Your task to perform on an android device: toggle notification dots Image 0: 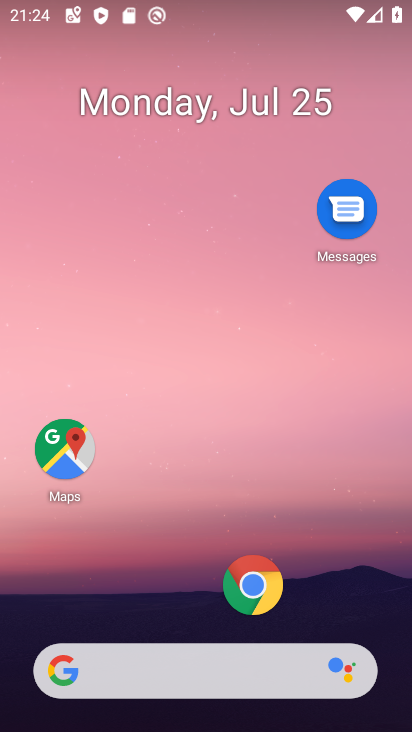
Step 0: press home button
Your task to perform on an android device: toggle notification dots Image 1: 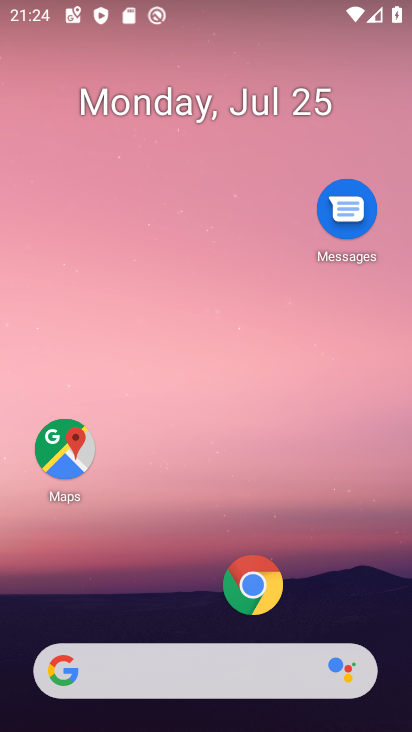
Step 1: drag from (210, 675) to (341, 7)
Your task to perform on an android device: toggle notification dots Image 2: 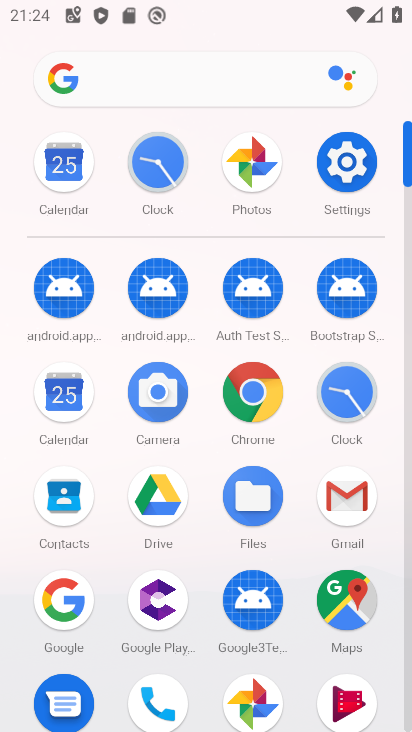
Step 2: click (348, 159)
Your task to perform on an android device: toggle notification dots Image 3: 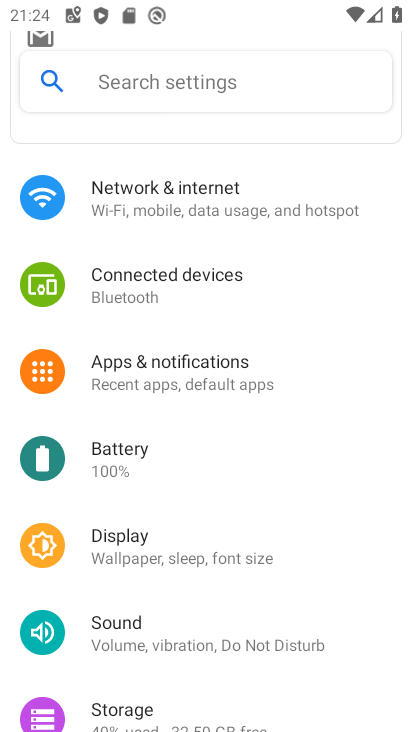
Step 3: click (231, 368)
Your task to perform on an android device: toggle notification dots Image 4: 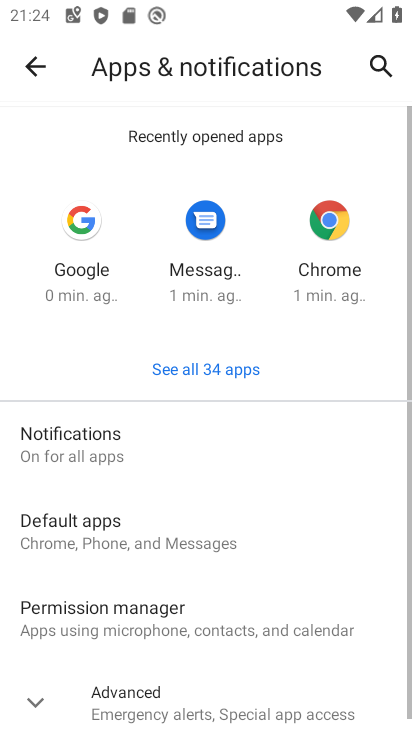
Step 4: click (68, 443)
Your task to perform on an android device: toggle notification dots Image 5: 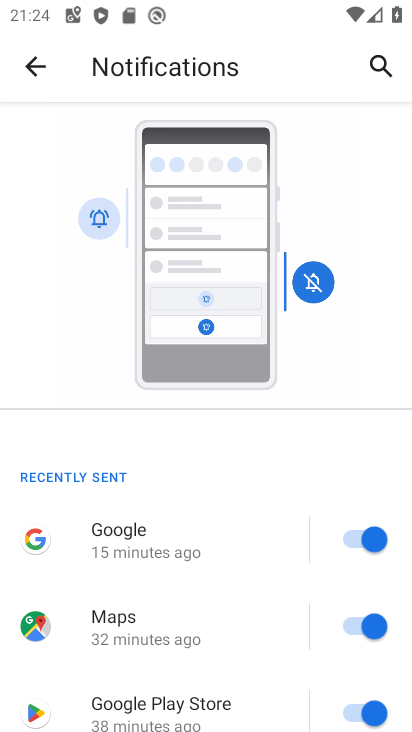
Step 5: drag from (280, 652) to (347, 47)
Your task to perform on an android device: toggle notification dots Image 6: 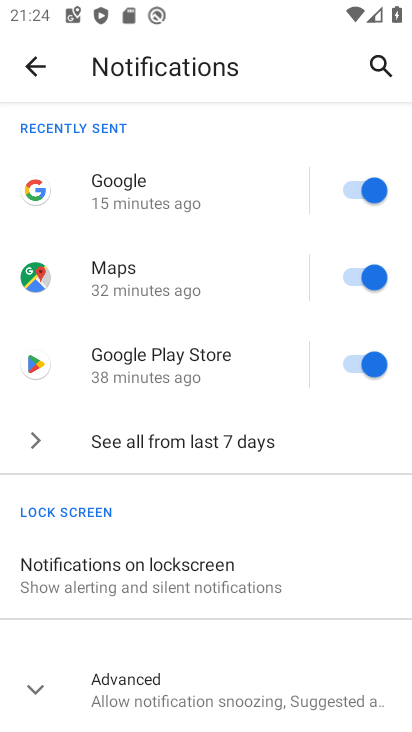
Step 6: click (171, 689)
Your task to perform on an android device: toggle notification dots Image 7: 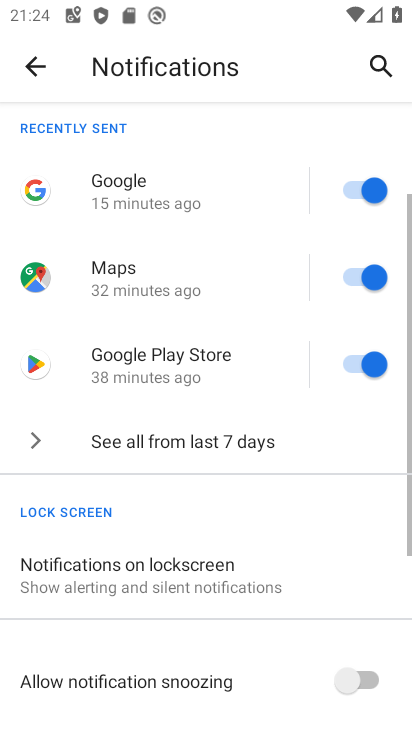
Step 7: drag from (253, 656) to (337, 54)
Your task to perform on an android device: toggle notification dots Image 8: 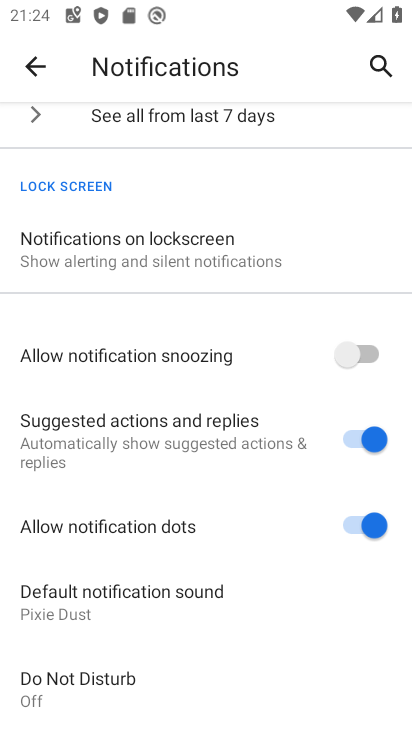
Step 8: click (348, 523)
Your task to perform on an android device: toggle notification dots Image 9: 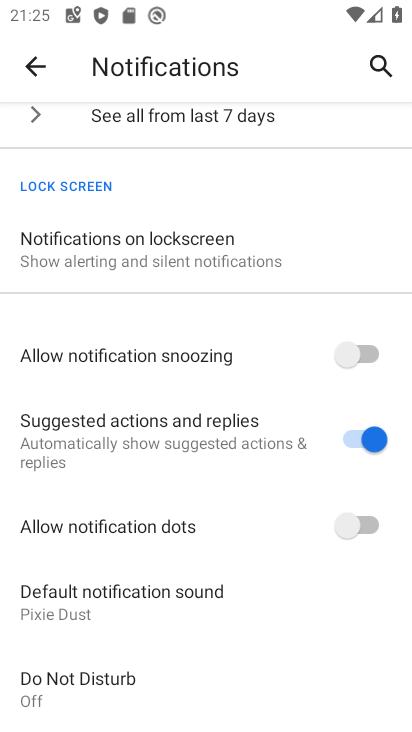
Step 9: task complete